Your task to perform on an android device: Is it going to rain today? Image 0: 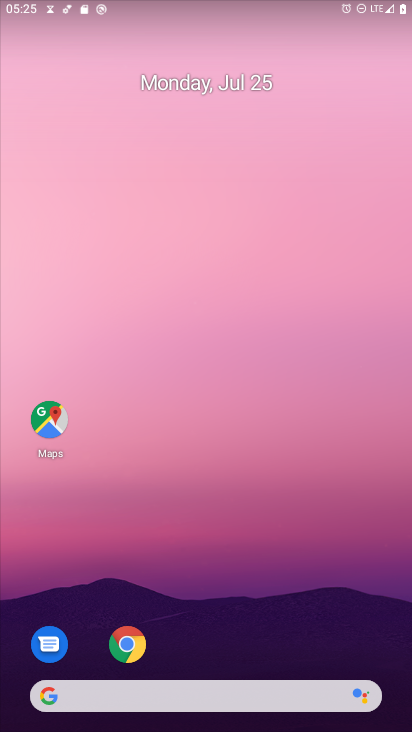
Step 0: click (44, 694)
Your task to perform on an android device: Is it going to rain today? Image 1: 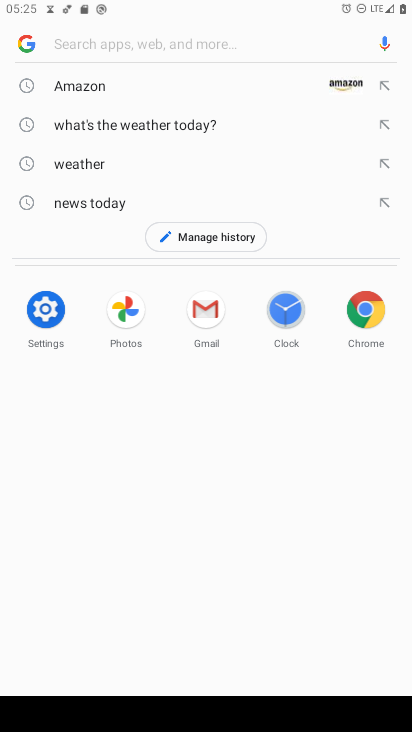
Step 1: type "Is it going to rain today?"
Your task to perform on an android device: Is it going to rain today? Image 2: 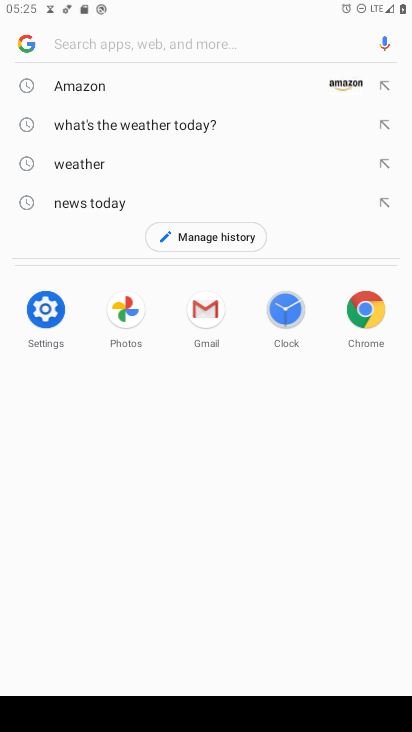
Step 2: click (104, 37)
Your task to perform on an android device: Is it going to rain today? Image 3: 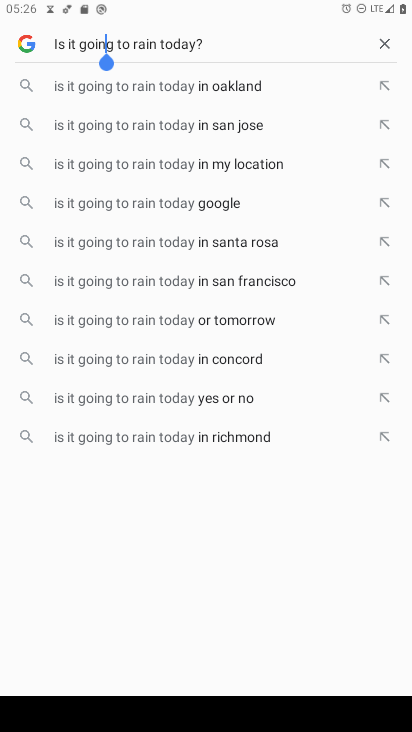
Step 3: press enter
Your task to perform on an android device: Is it going to rain today? Image 4: 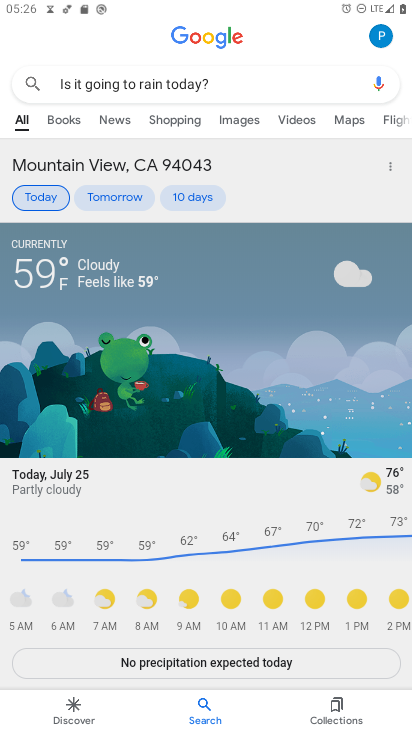
Step 4: task complete